Your task to perform on an android device: remove spam from my inbox in the gmail app Image 0: 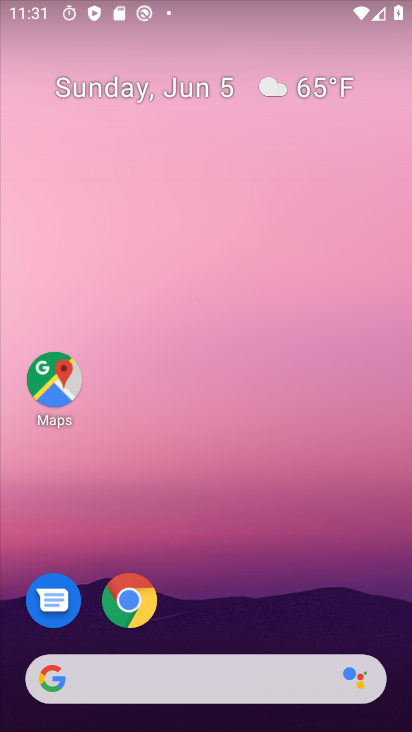
Step 0: click (129, 65)
Your task to perform on an android device: remove spam from my inbox in the gmail app Image 1: 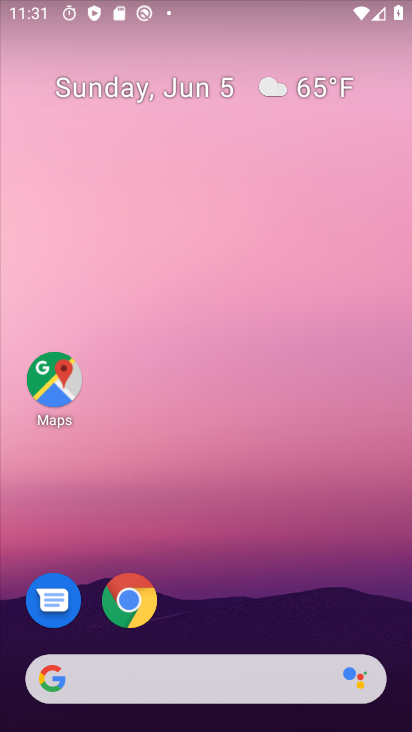
Step 1: drag from (175, 319) to (145, 201)
Your task to perform on an android device: remove spam from my inbox in the gmail app Image 2: 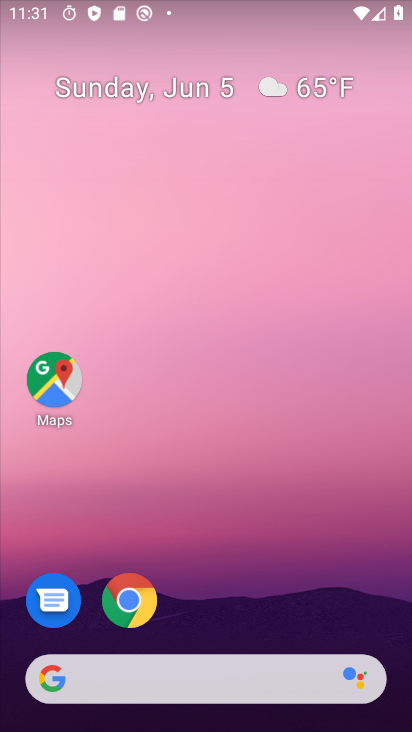
Step 2: click (151, 143)
Your task to perform on an android device: remove spam from my inbox in the gmail app Image 3: 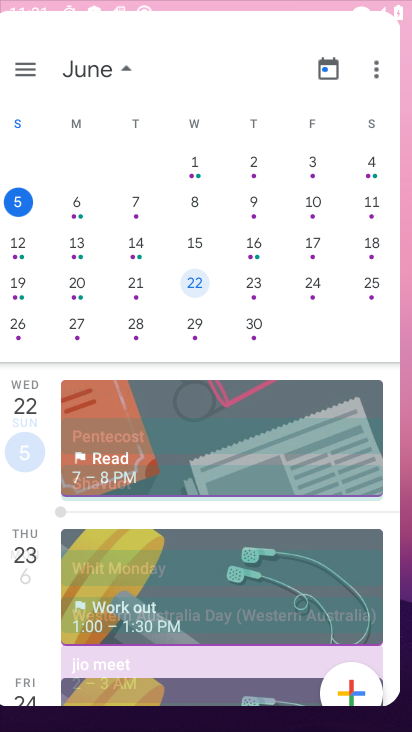
Step 3: drag from (266, 524) to (196, 74)
Your task to perform on an android device: remove spam from my inbox in the gmail app Image 4: 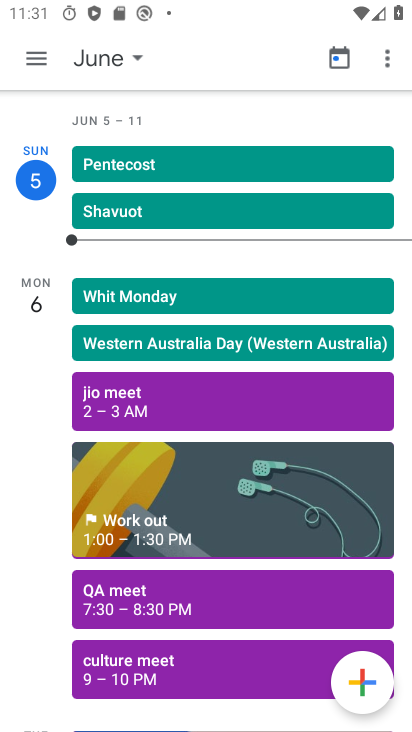
Step 4: press home button
Your task to perform on an android device: remove spam from my inbox in the gmail app Image 5: 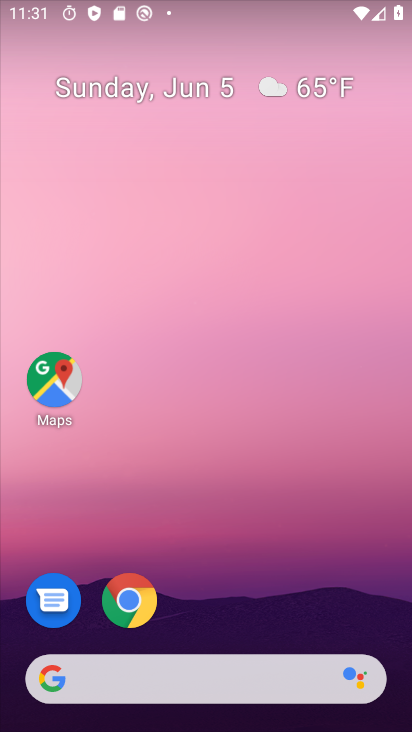
Step 5: drag from (201, 676) to (90, 50)
Your task to perform on an android device: remove spam from my inbox in the gmail app Image 6: 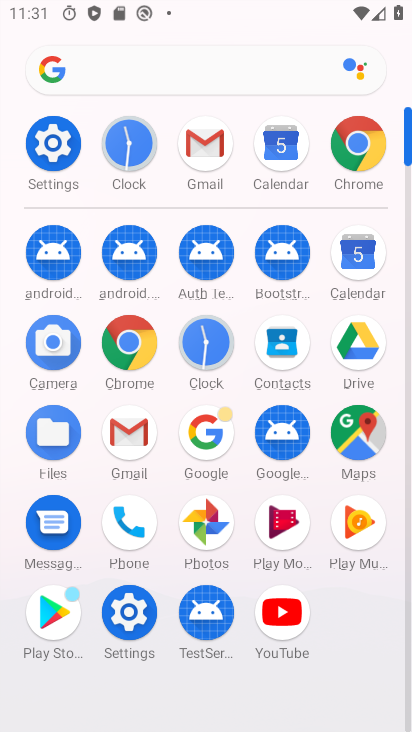
Step 6: click (115, 432)
Your task to perform on an android device: remove spam from my inbox in the gmail app Image 7: 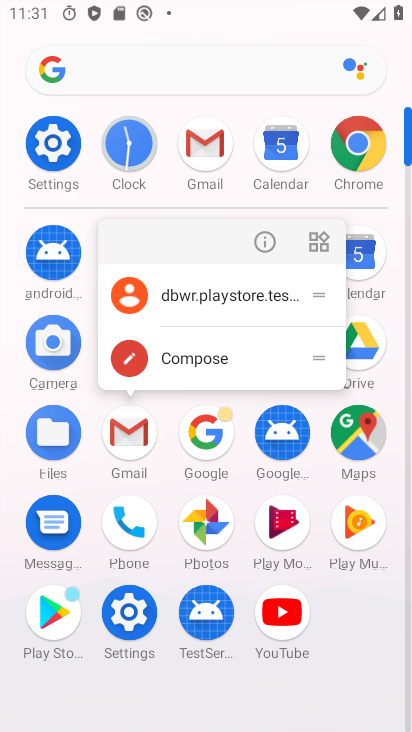
Step 7: click (128, 438)
Your task to perform on an android device: remove spam from my inbox in the gmail app Image 8: 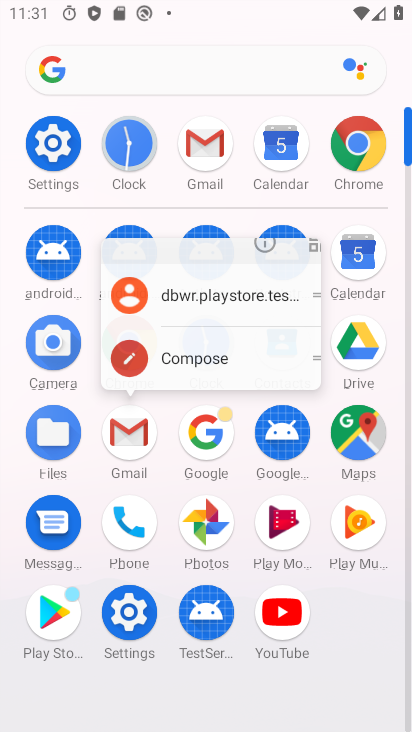
Step 8: click (126, 432)
Your task to perform on an android device: remove spam from my inbox in the gmail app Image 9: 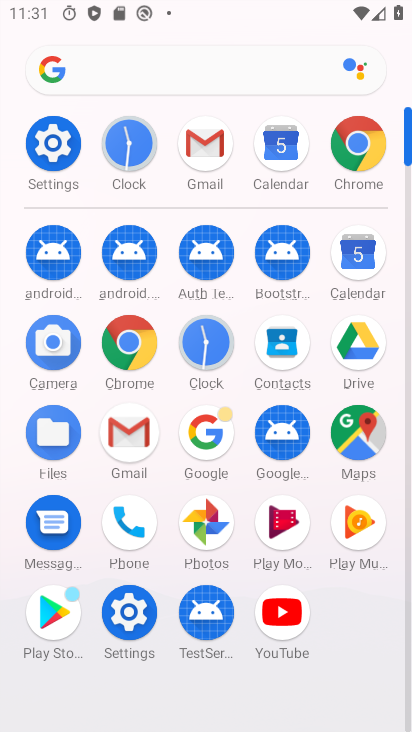
Step 9: click (129, 434)
Your task to perform on an android device: remove spam from my inbox in the gmail app Image 10: 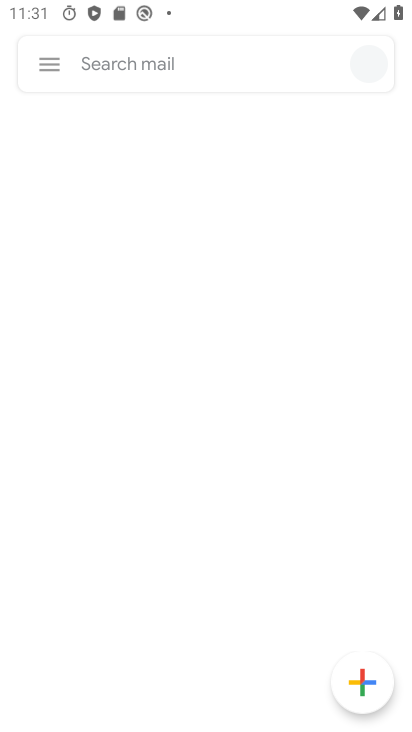
Step 10: click (127, 438)
Your task to perform on an android device: remove spam from my inbox in the gmail app Image 11: 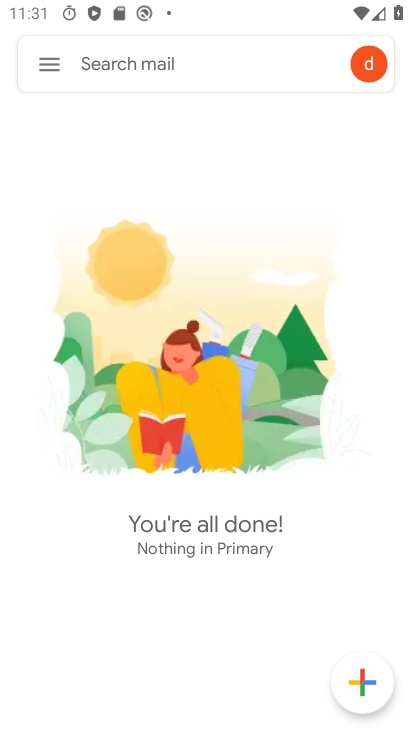
Step 11: click (47, 56)
Your task to perform on an android device: remove spam from my inbox in the gmail app Image 12: 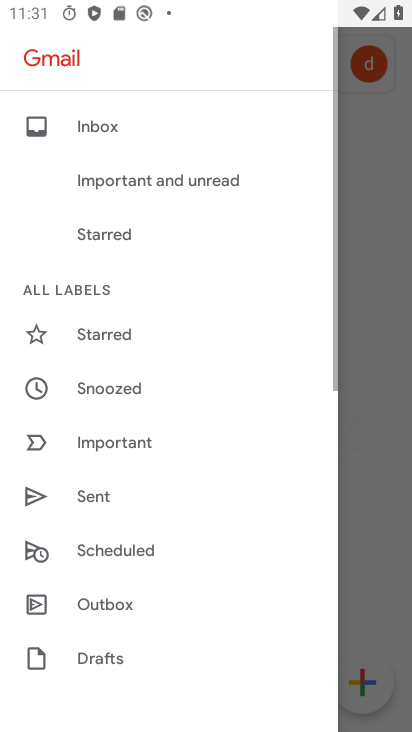
Step 12: click (47, 56)
Your task to perform on an android device: remove spam from my inbox in the gmail app Image 13: 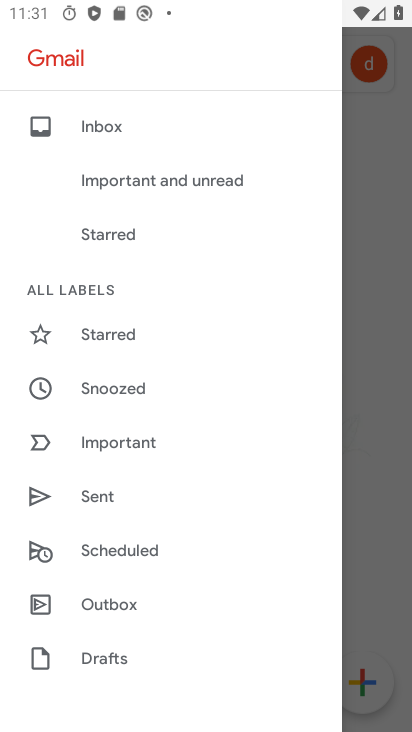
Step 13: drag from (132, 555) to (134, 80)
Your task to perform on an android device: remove spam from my inbox in the gmail app Image 14: 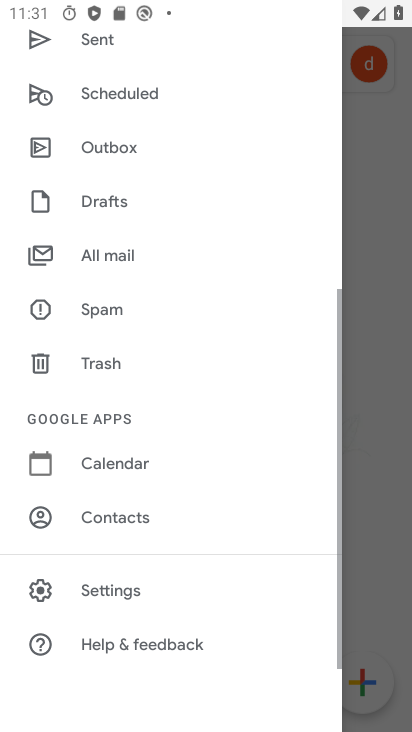
Step 14: drag from (119, 449) to (81, 98)
Your task to perform on an android device: remove spam from my inbox in the gmail app Image 15: 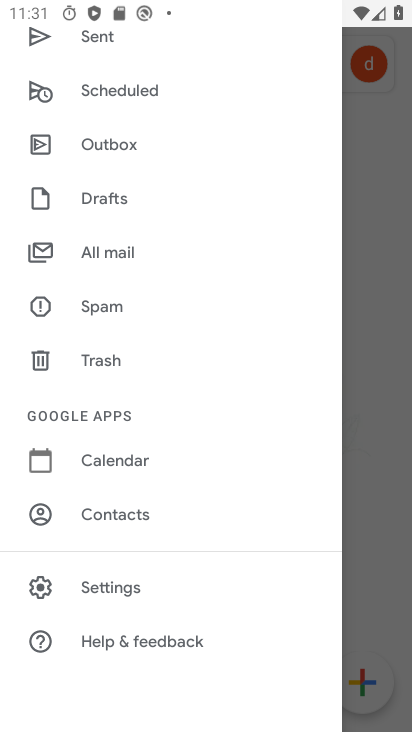
Step 15: drag from (110, 359) to (93, 304)
Your task to perform on an android device: remove spam from my inbox in the gmail app Image 16: 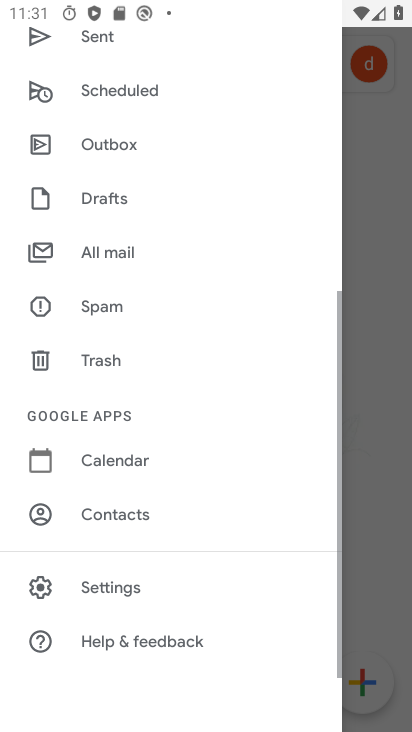
Step 16: click (93, 304)
Your task to perform on an android device: remove spam from my inbox in the gmail app Image 17: 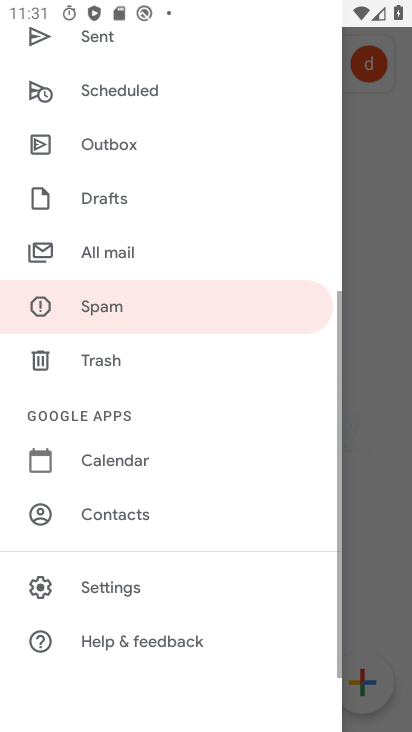
Step 17: click (92, 305)
Your task to perform on an android device: remove spam from my inbox in the gmail app Image 18: 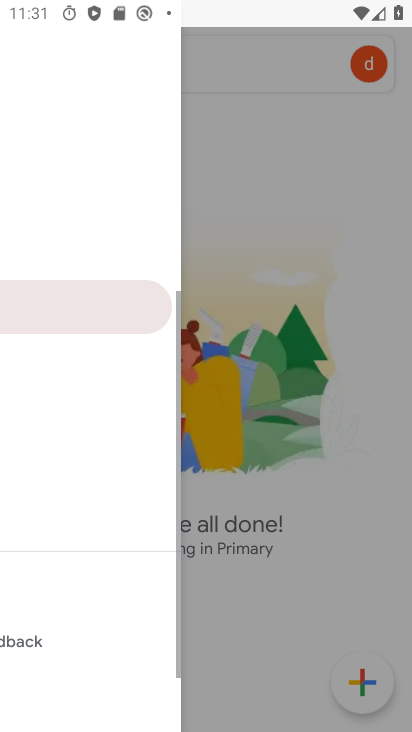
Step 18: click (92, 305)
Your task to perform on an android device: remove spam from my inbox in the gmail app Image 19: 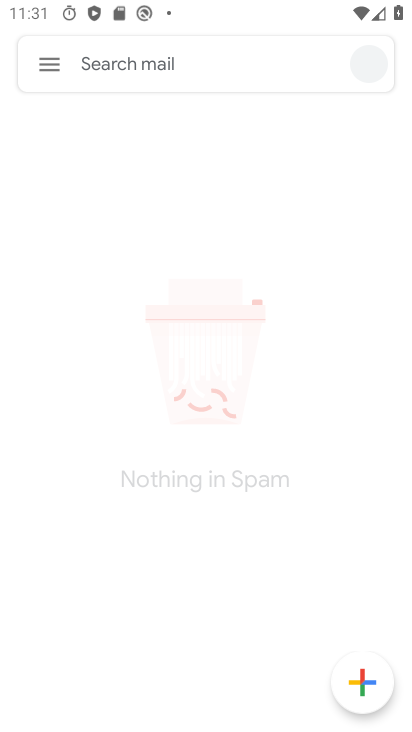
Step 19: click (94, 307)
Your task to perform on an android device: remove spam from my inbox in the gmail app Image 20: 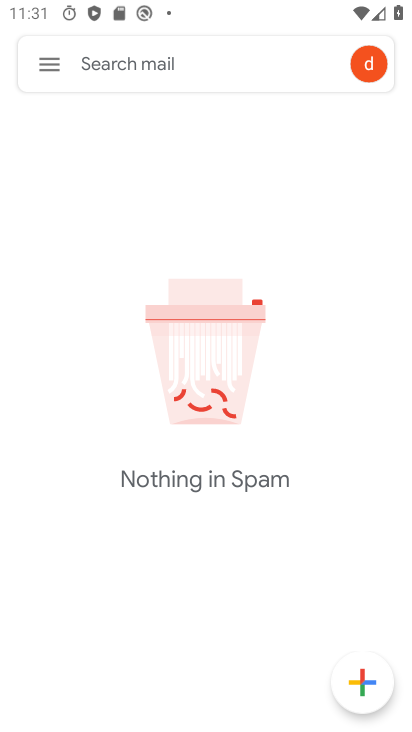
Step 20: task complete